Your task to perform on an android device: install app "Microsoft Outlook" Image 0: 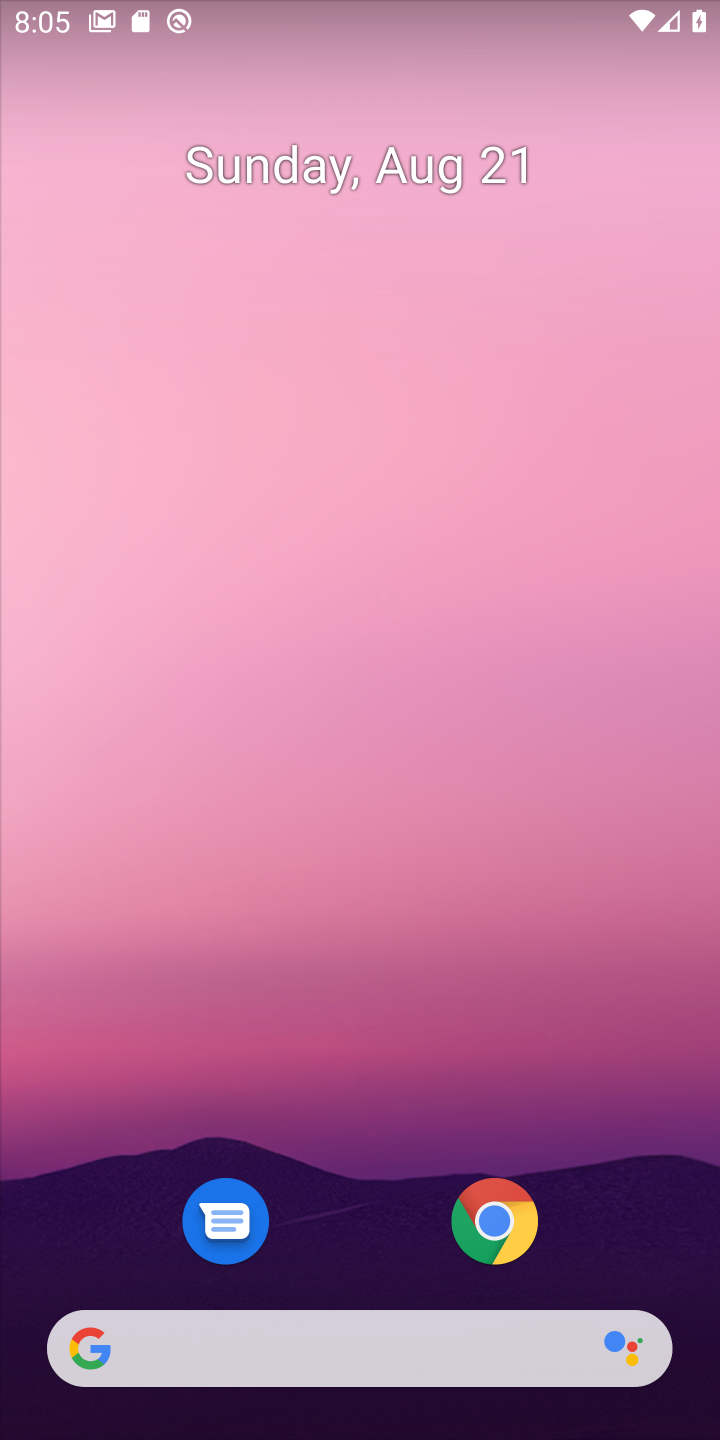
Step 0: drag from (371, 1119) to (389, 113)
Your task to perform on an android device: install app "Microsoft Outlook" Image 1: 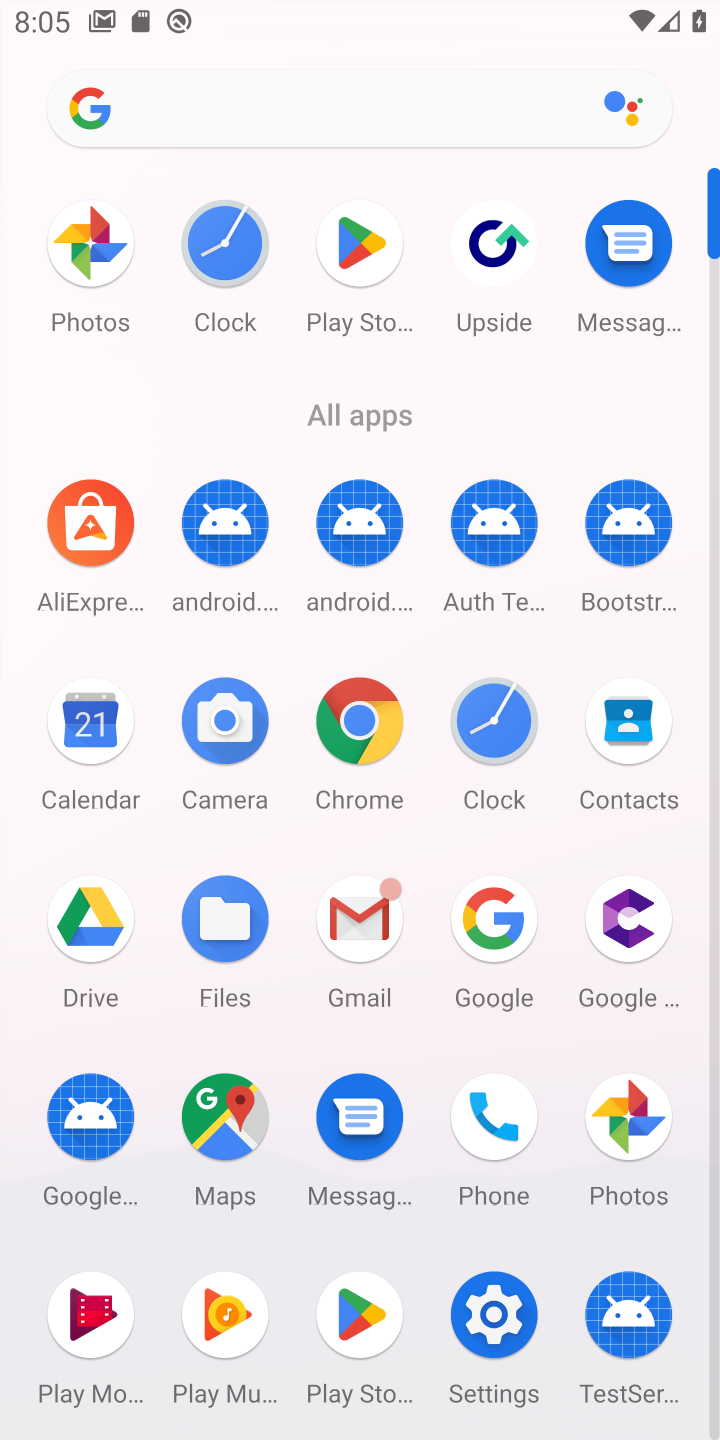
Step 1: click (358, 1319)
Your task to perform on an android device: install app "Microsoft Outlook" Image 2: 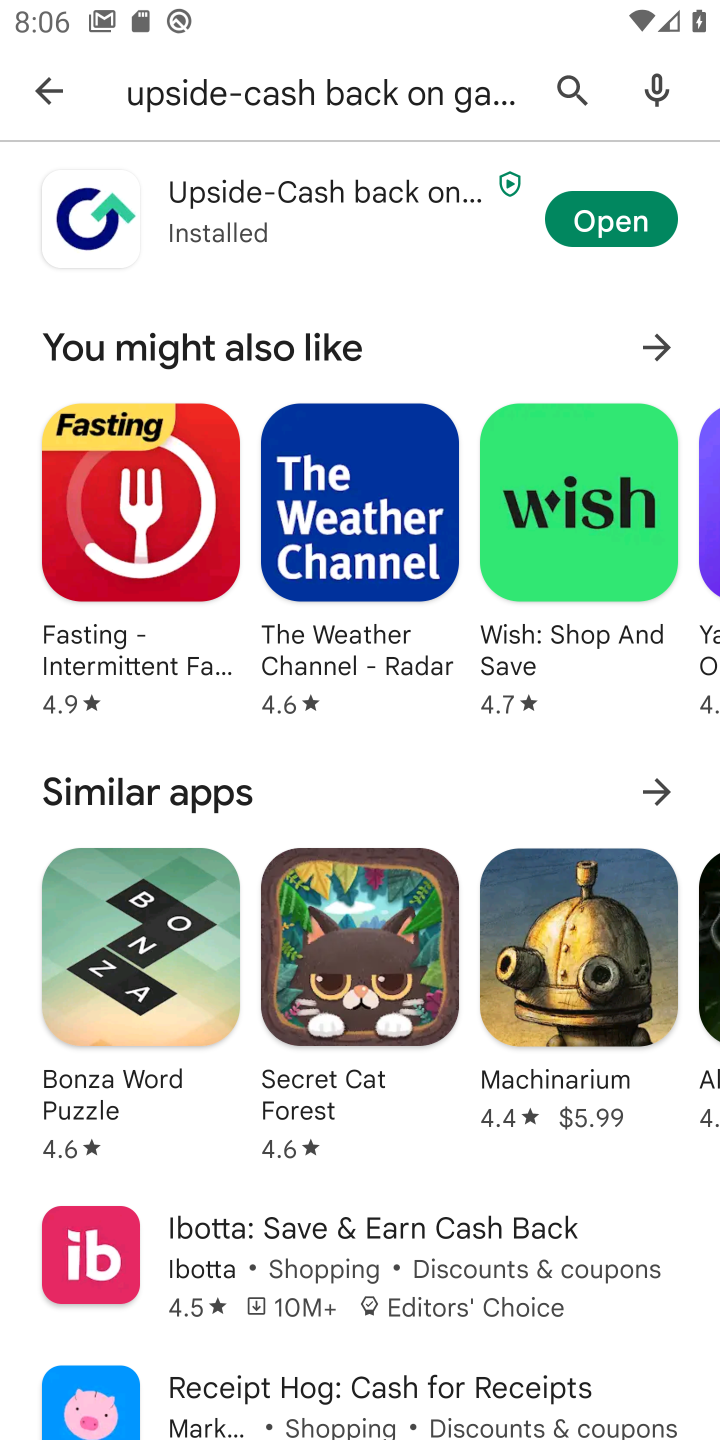
Step 2: click (567, 81)
Your task to perform on an android device: install app "Microsoft Outlook" Image 3: 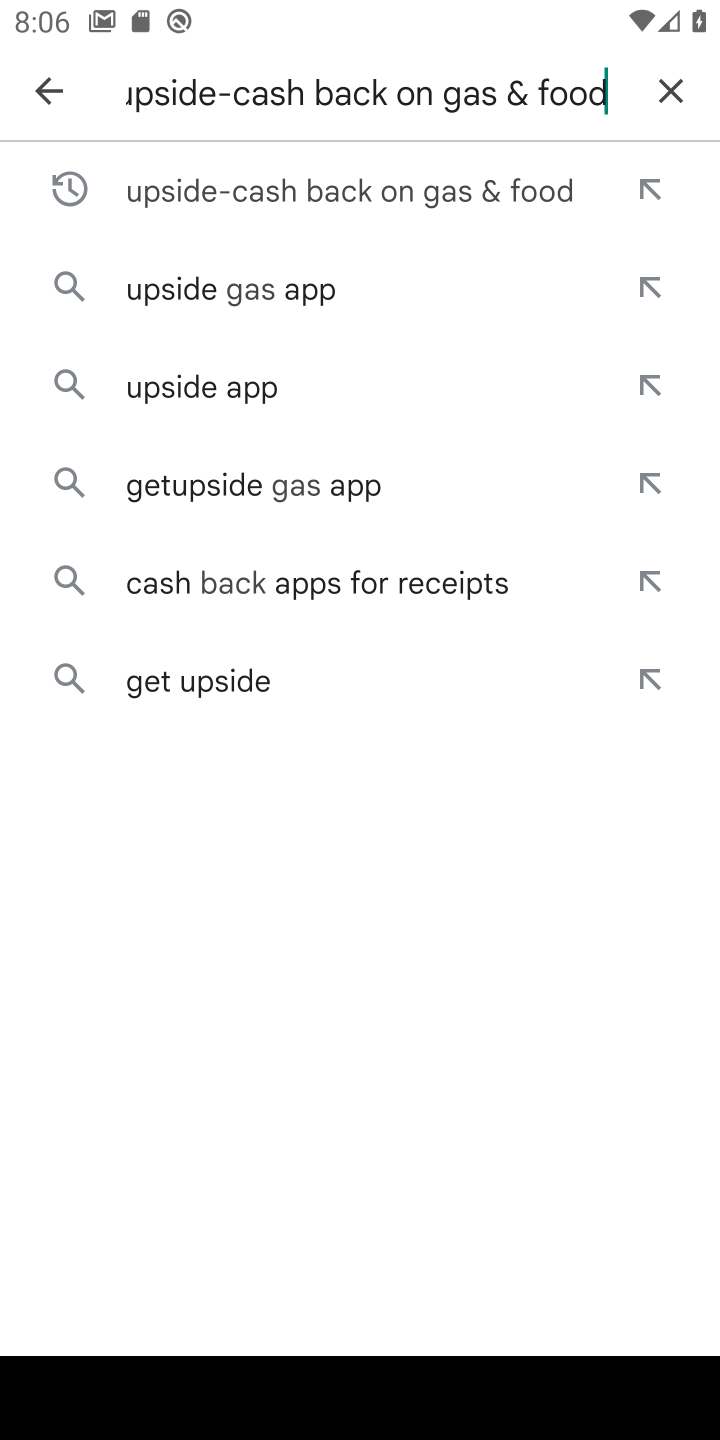
Step 3: click (671, 78)
Your task to perform on an android device: install app "Microsoft Outlook" Image 4: 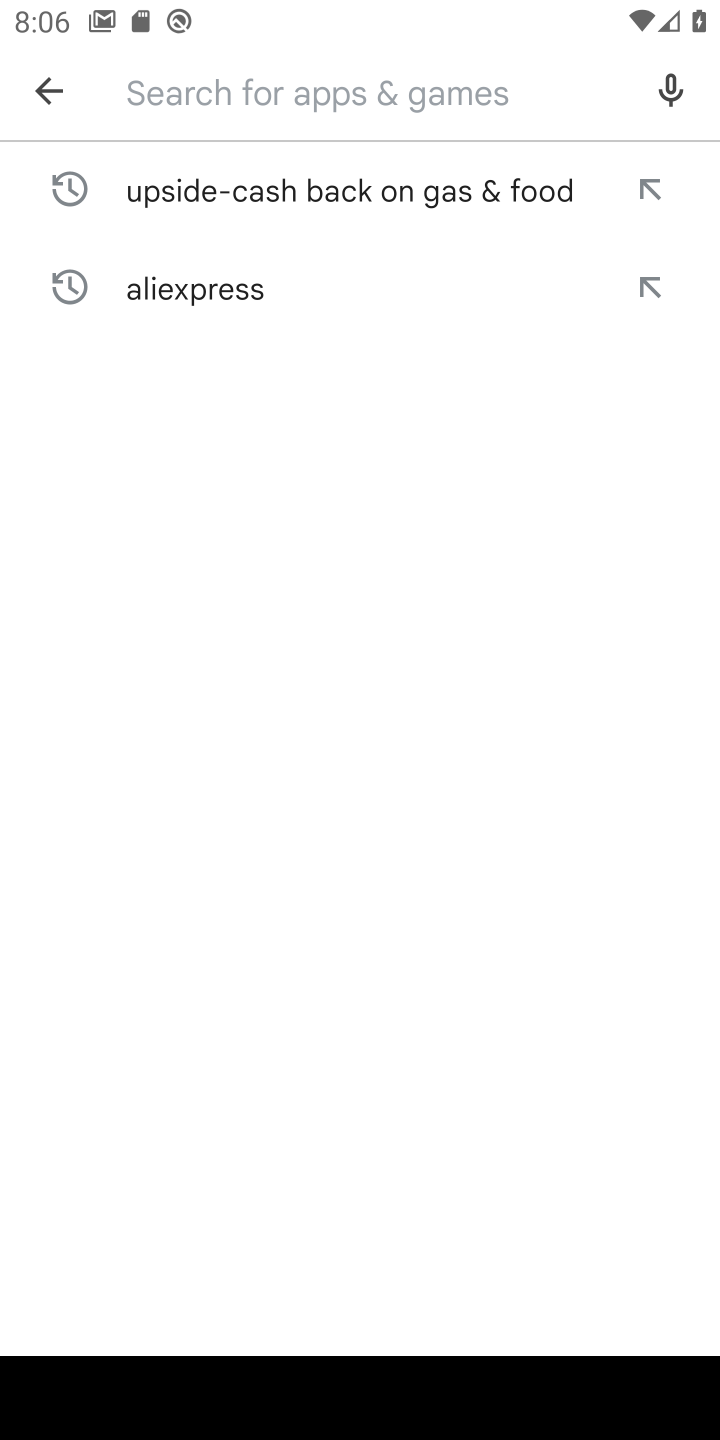
Step 4: type "Microsoft Outlook"
Your task to perform on an android device: install app "Microsoft Outlook" Image 5: 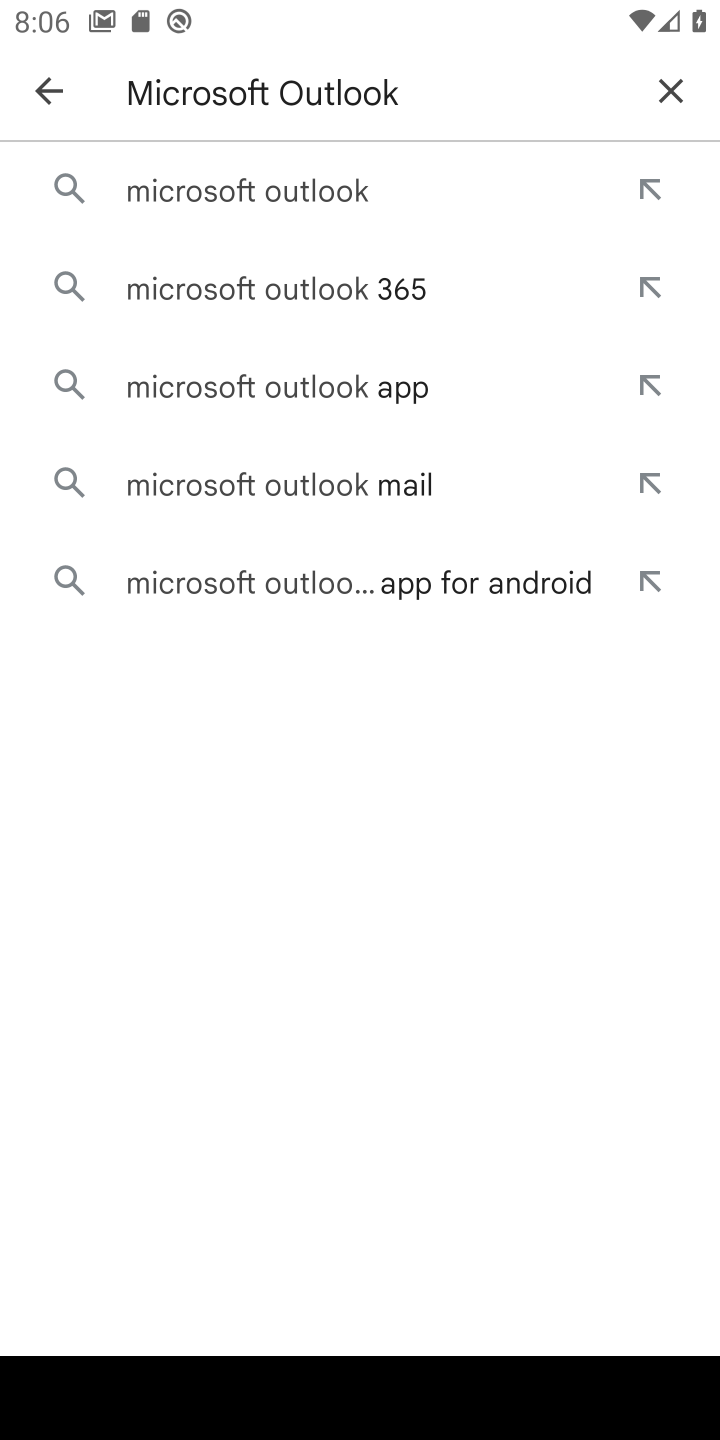
Step 5: click (277, 195)
Your task to perform on an android device: install app "Microsoft Outlook" Image 6: 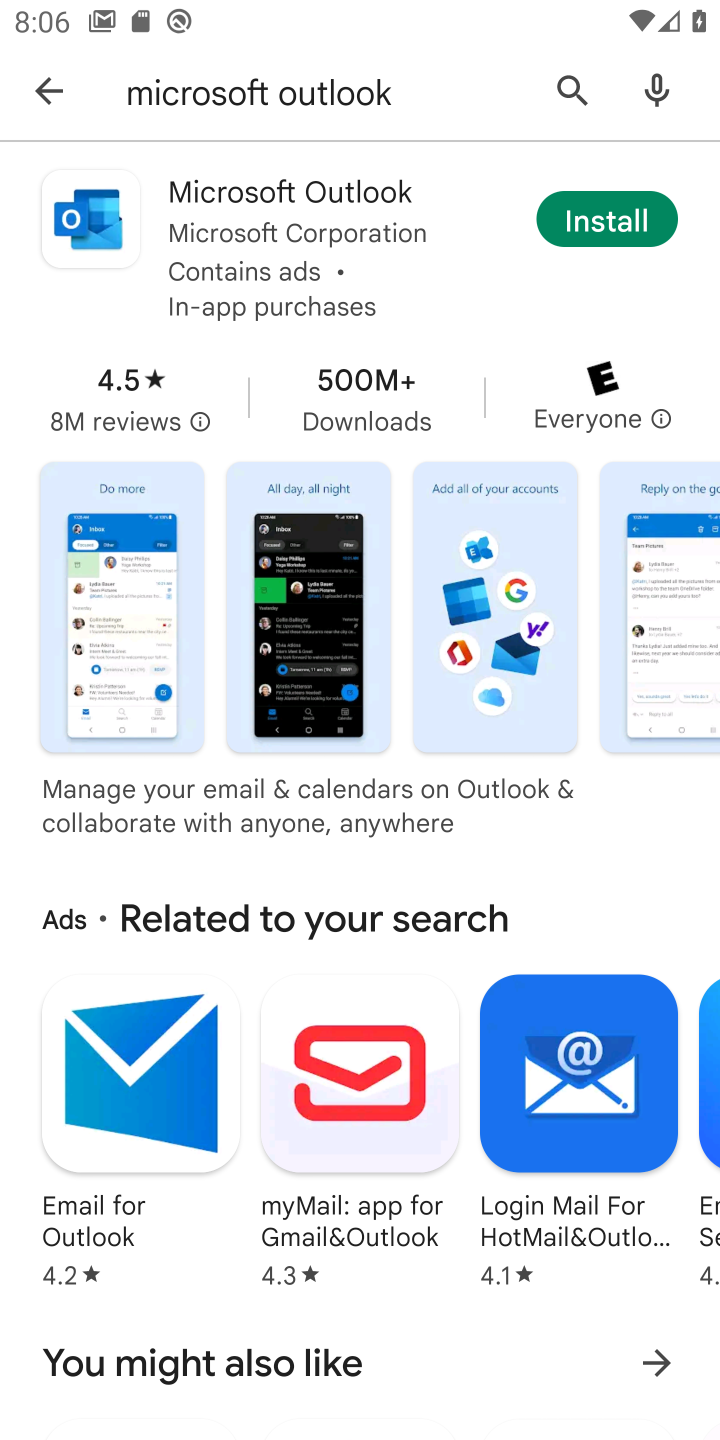
Step 6: click (603, 232)
Your task to perform on an android device: install app "Microsoft Outlook" Image 7: 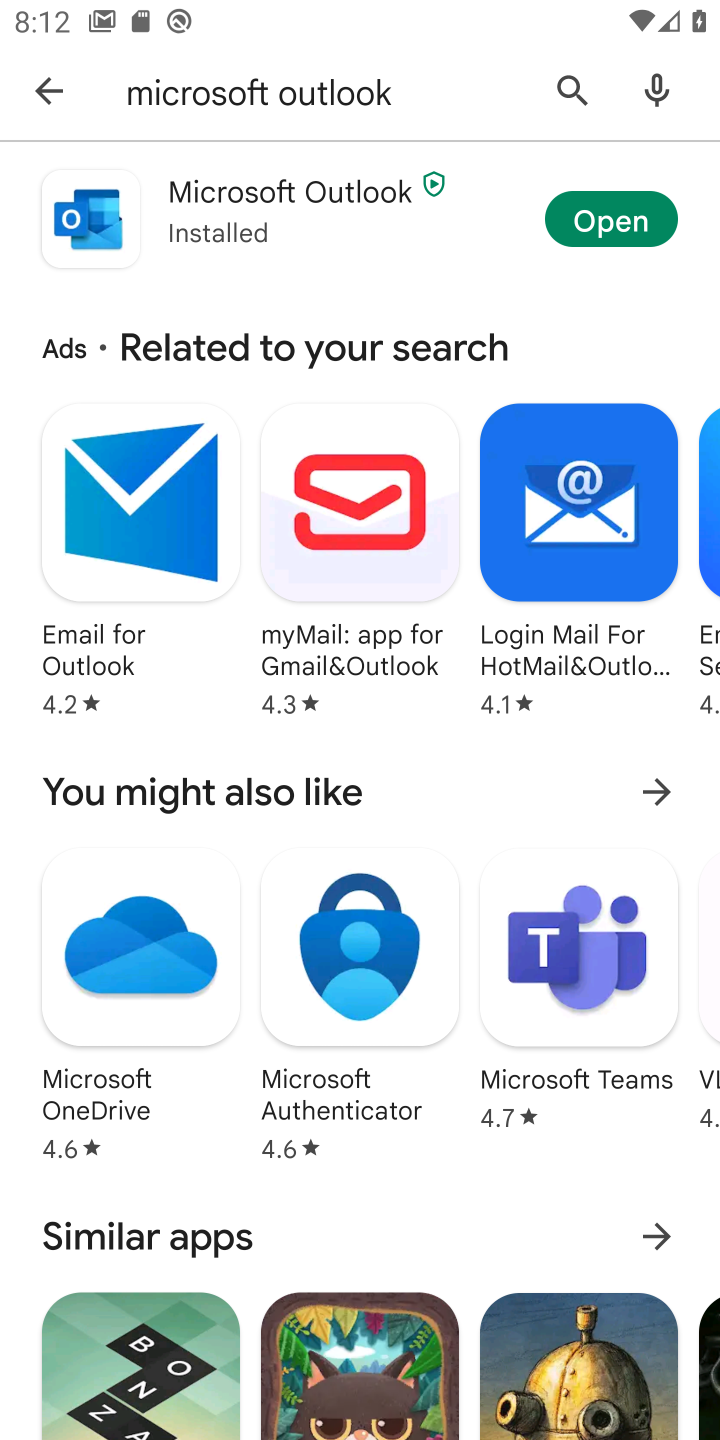
Step 7: task complete